Your task to perform on an android device: delete browsing data in the chrome app Image 0: 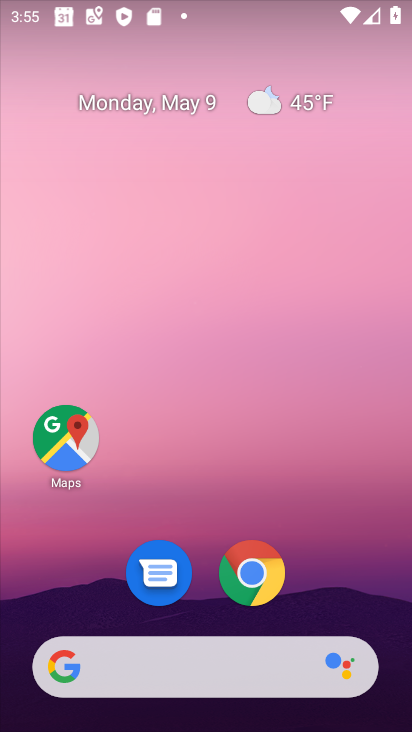
Step 0: click (254, 581)
Your task to perform on an android device: delete browsing data in the chrome app Image 1: 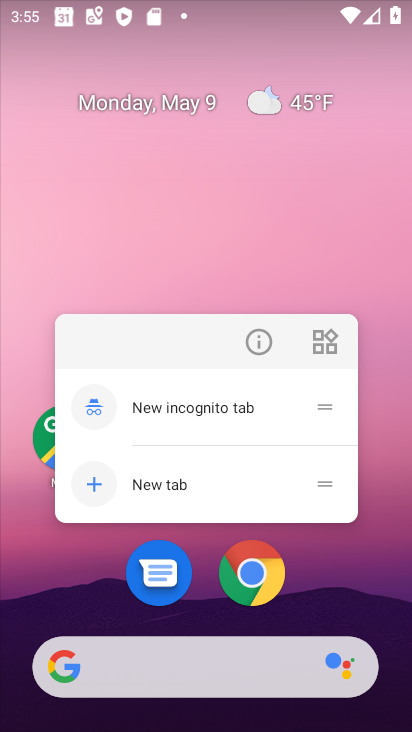
Step 1: click (257, 578)
Your task to perform on an android device: delete browsing data in the chrome app Image 2: 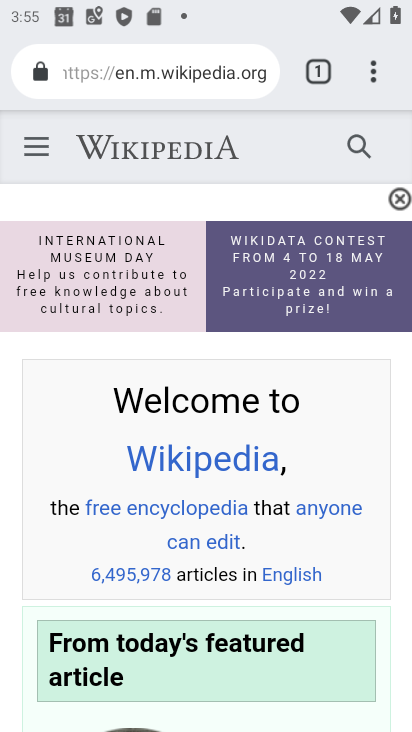
Step 2: drag from (372, 75) to (120, 573)
Your task to perform on an android device: delete browsing data in the chrome app Image 3: 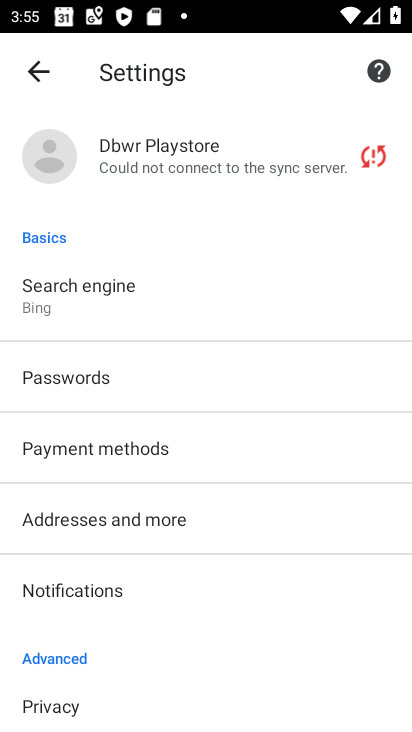
Step 3: click (52, 709)
Your task to perform on an android device: delete browsing data in the chrome app Image 4: 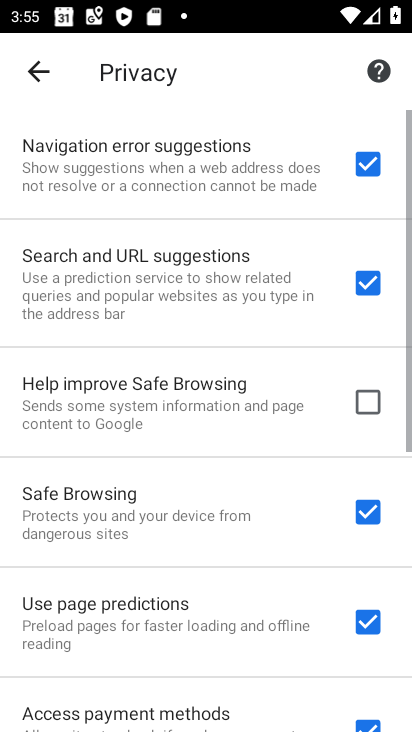
Step 4: drag from (166, 670) to (191, 134)
Your task to perform on an android device: delete browsing data in the chrome app Image 5: 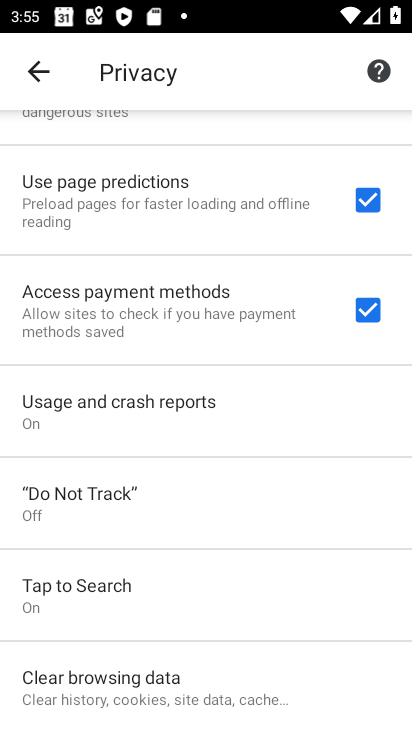
Step 5: click (78, 700)
Your task to perform on an android device: delete browsing data in the chrome app Image 6: 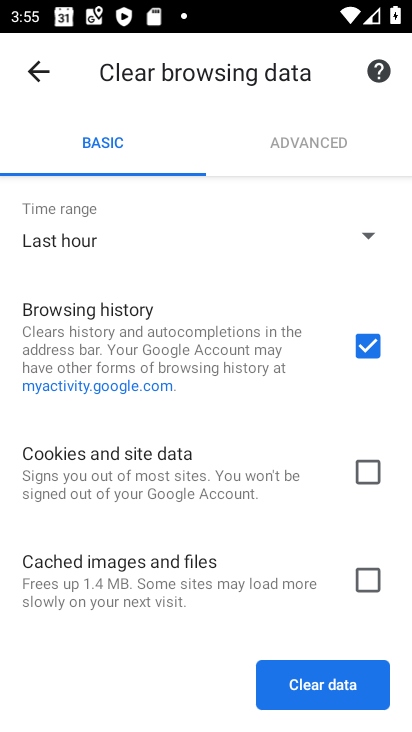
Step 6: click (345, 676)
Your task to perform on an android device: delete browsing data in the chrome app Image 7: 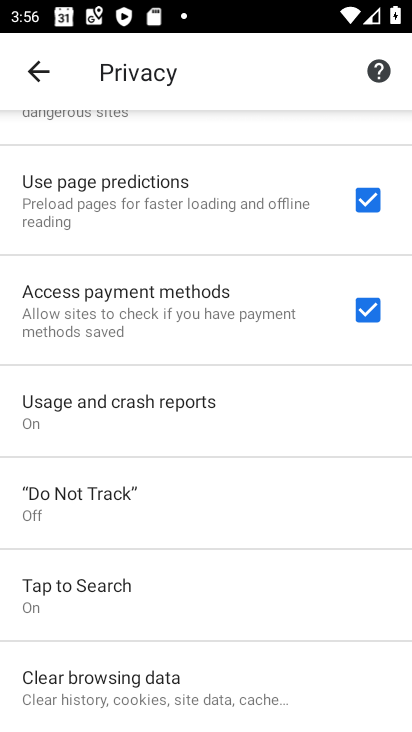
Step 7: task complete